Your task to perform on an android device: check storage Image 0: 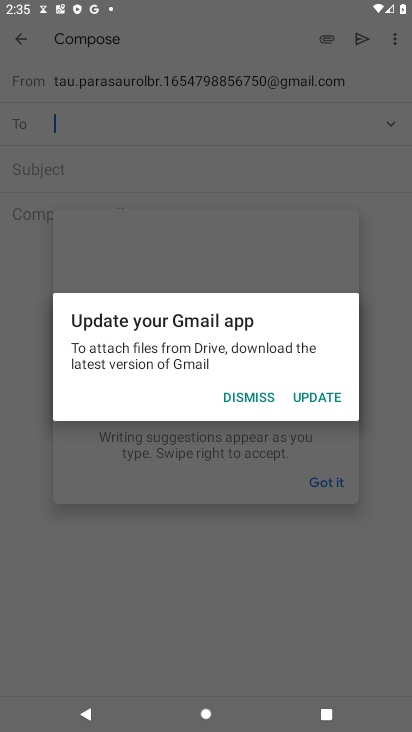
Step 0: press home button
Your task to perform on an android device: check storage Image 1: 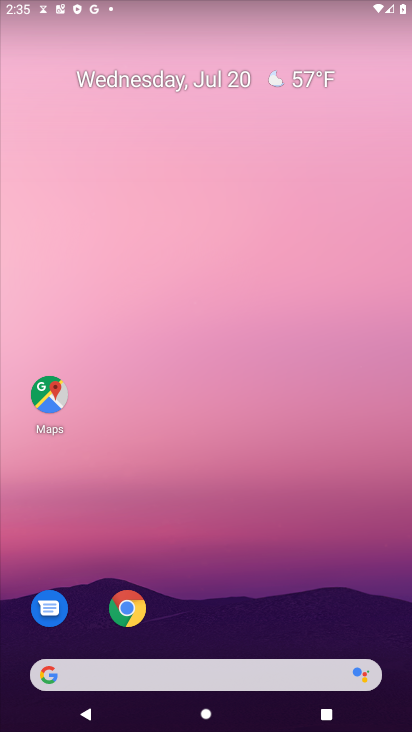
Step 1: click (193, 126)
Your task to perform on an android device: check storage Image 2: 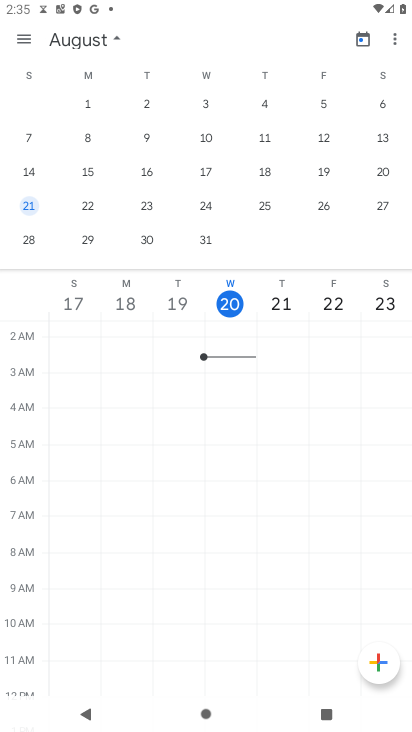
Step 2: drag from (222, 350) to (235, 238)
Your task to perform on an android device: check storage Image 3: 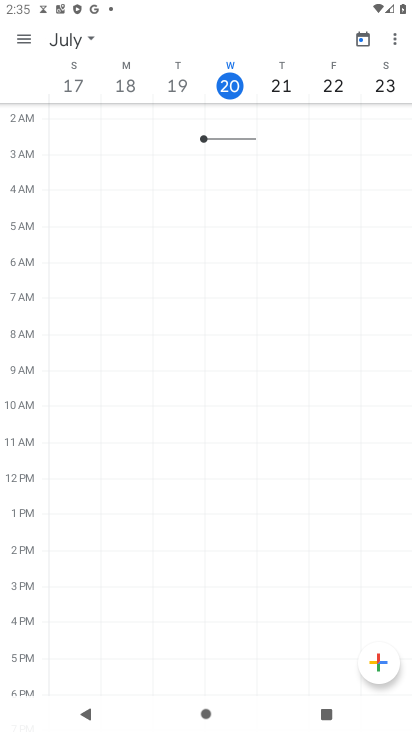
Step 3: drag from (215, 591) to (232, 30)
Your task to perform on an android device: check storage Image 4: 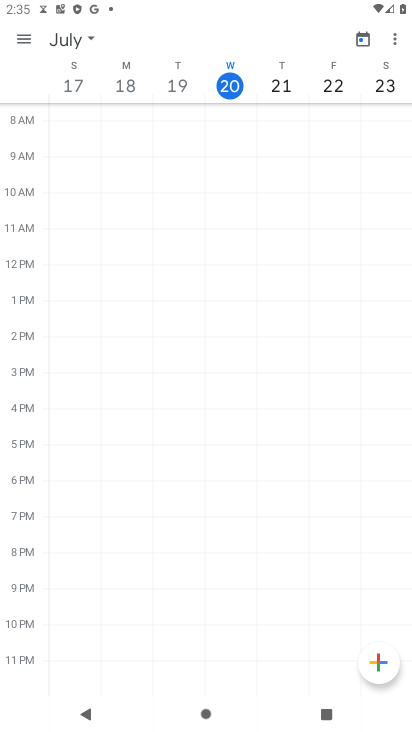
Step 4: click (201, 564)
Your task to perform on an android device: check storage Image 5: 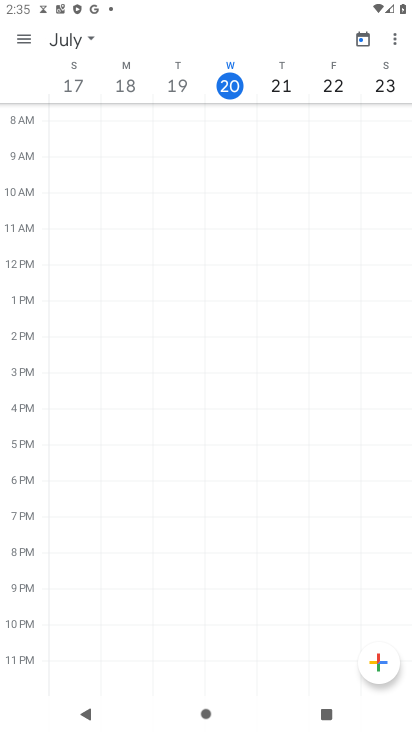
Step 5: press back button
Your task to perform on an android device: check storage Image 6: 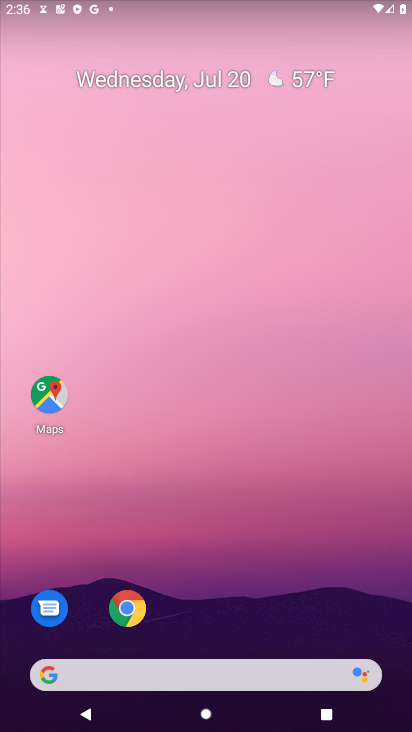
Step 6: click (209, 33)
Your task to perform on an android device: check storage Image 7: 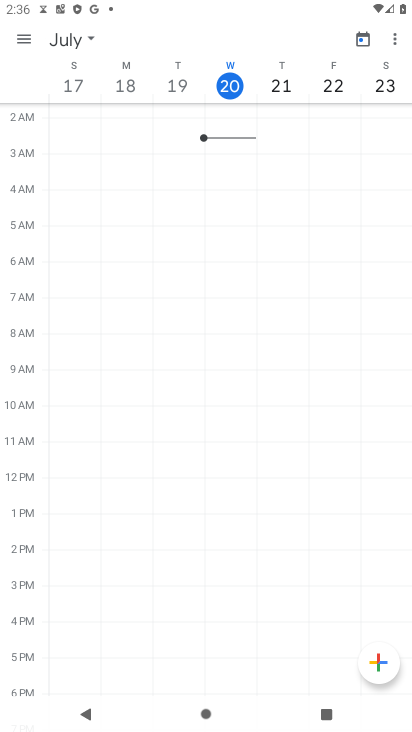
Step 7: drag from (231, 457) to (231, 358)
Your task to perform on an android device: check storage Image 8: 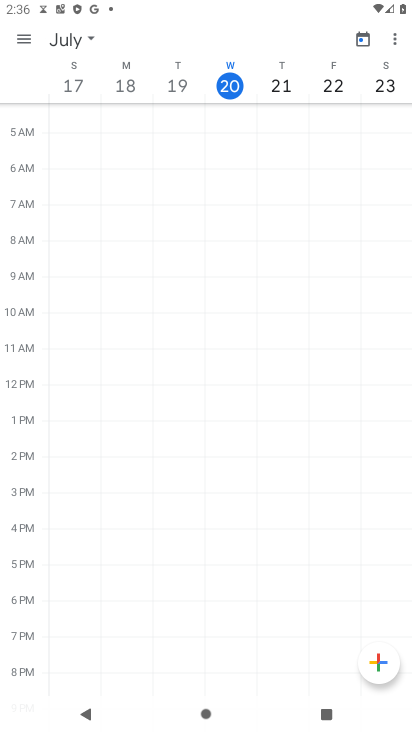
Step 8: press home button
Your task to perform on an android device: check storage Image 9: 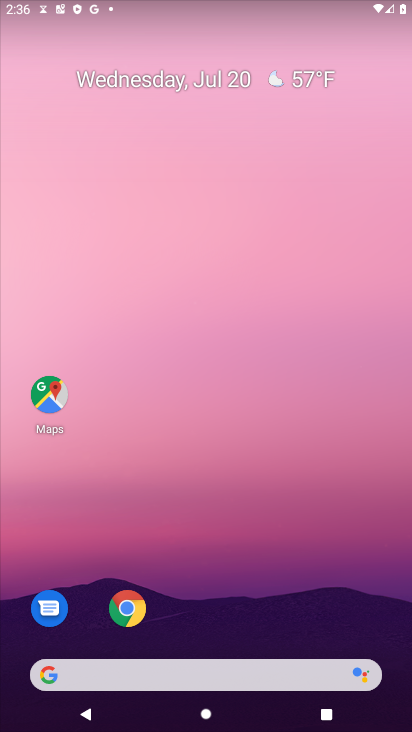
Step 9: drag from (201, 609) to (277, 94)
Your task to perform on an android device: check storage Image 10: 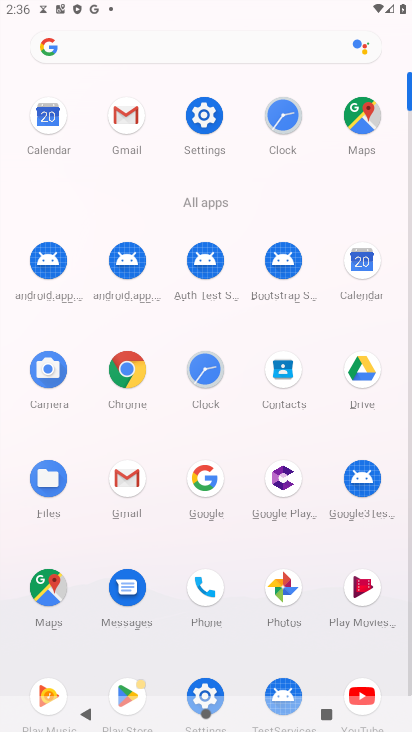
Step 10: click (198, 117)
Your task to perform on an android device: check storage Image 11: 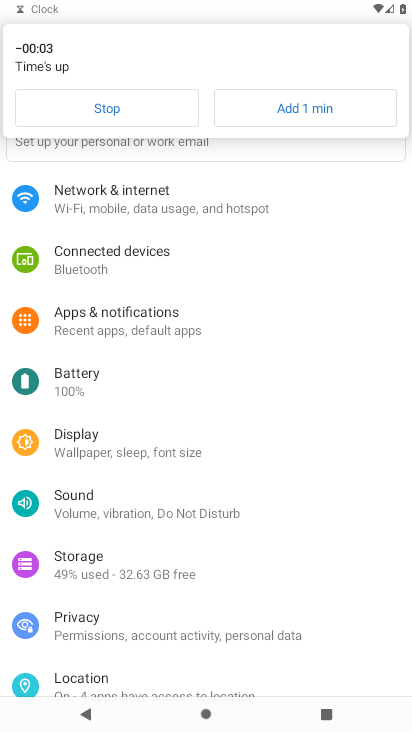
Step 11: click (87, 571)
Your task to perform on an android device: check storage Image 12: 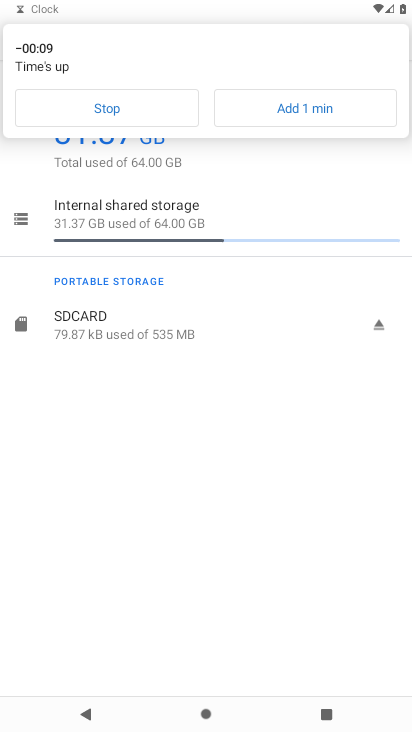
Step 12: click (129, 110)
Your task to perform on an android device: check storage Image 13: 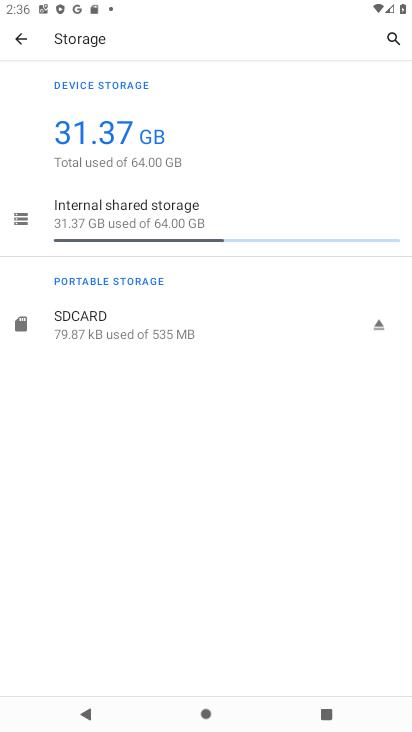
Step 13: task complete